Your task to perform on an android device: Do I have any events today? Image 0: 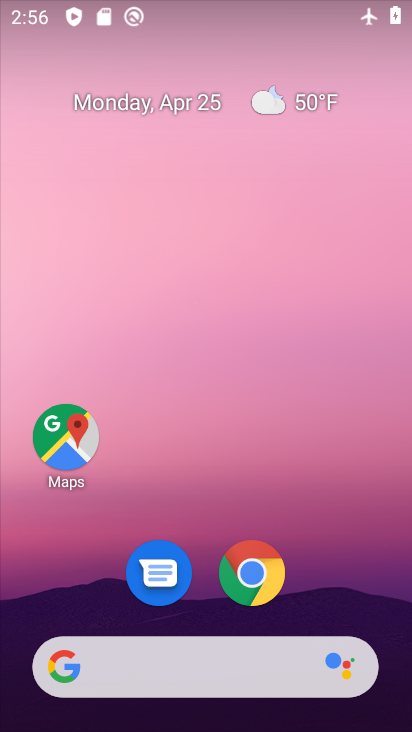
Step 0: drag from (362, 559) to (308, 74)
Your task to perform on an android device: Do I have any events today? Image 1: 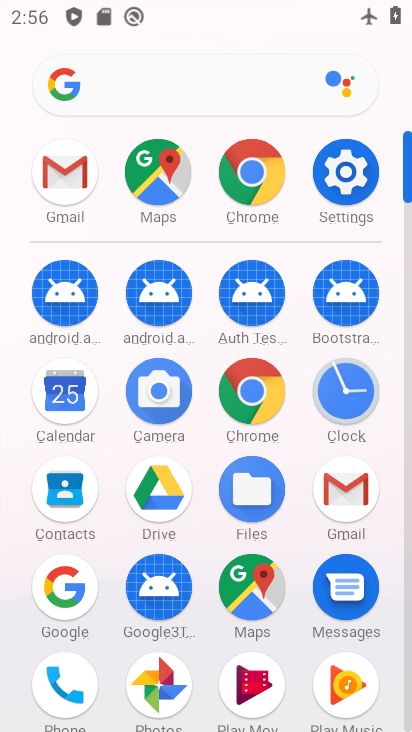
Step 1: click (57, 407)
Your task to perform on an android device: Do I have any events today? Image 2: 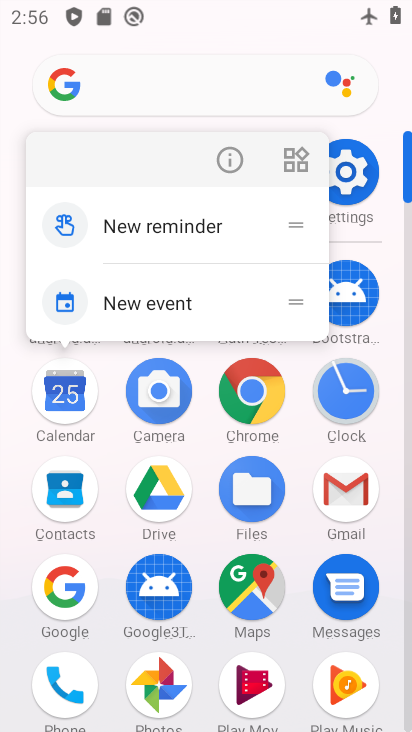
Step 2: click (57, 407)
Your task to perform on an android device: Do I have any events today? Image 3: 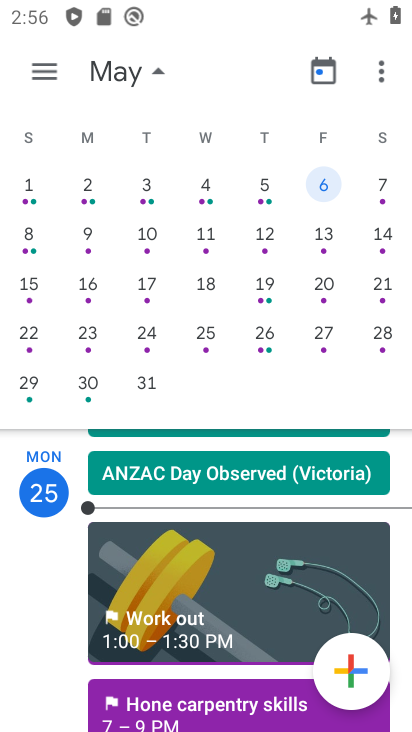
Step 3: click (331, 189)
Your task to perform on an android device: Do I have any events today? Image 4: 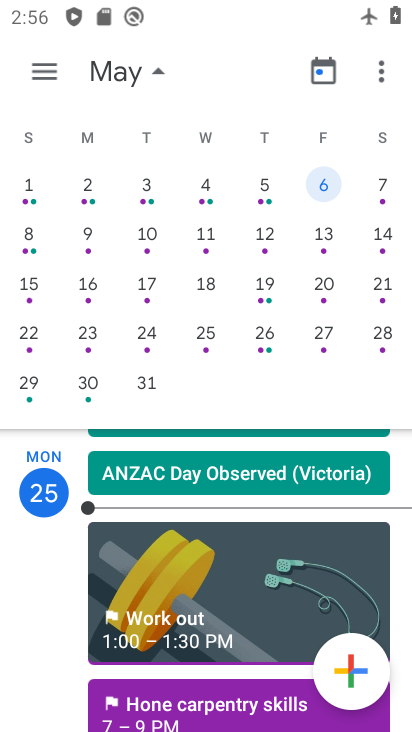
Step 4: click (331, 187)
Your task to perform on an android device: Do I have any events today? Image 5: 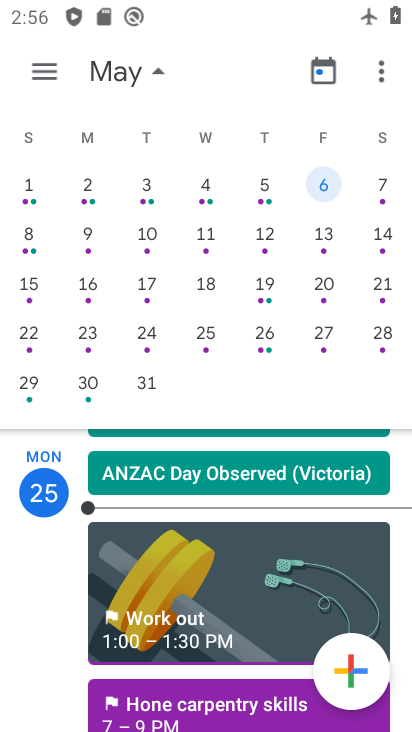
Step 5: click (331, 186)
Your task to perform on an android device: Do I have any events today? Image 6: 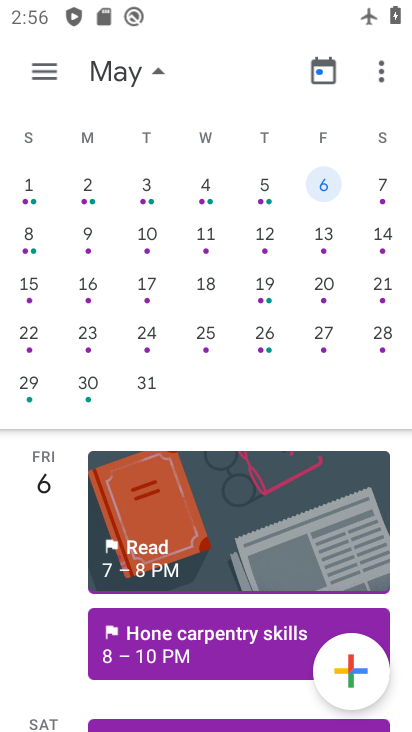
Step 6: task complete